Your task to perform on an android device: Open Google Chrome and open the bookmarks view Image 0: 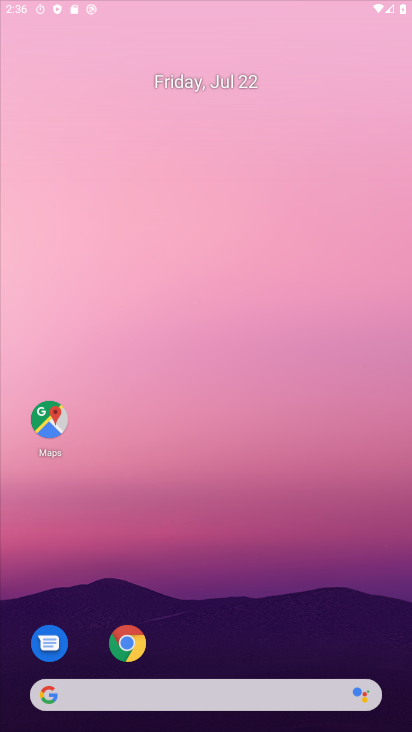
Step 0: press home button
Your task to perform on an android device: Open Google Chrome and open the bookmarks view Image 1: 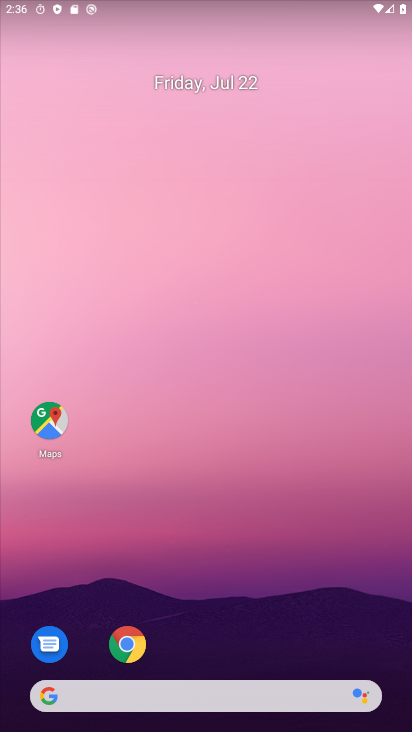
Step 1: drag from (266, 638) to (327, 58)
Your task to perform on an android device: Open Google Chrome and open the bookmarks view Image 2: 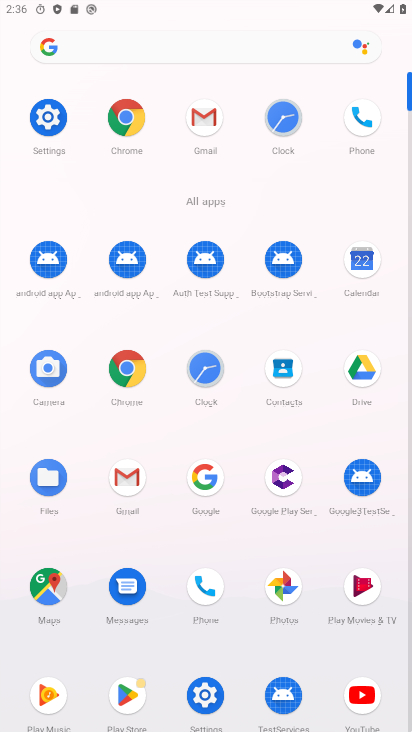
Step 2: click (129, 124)
Your task to perform on an android device: Open Google Chrome and open the bookmarks view Image 3: 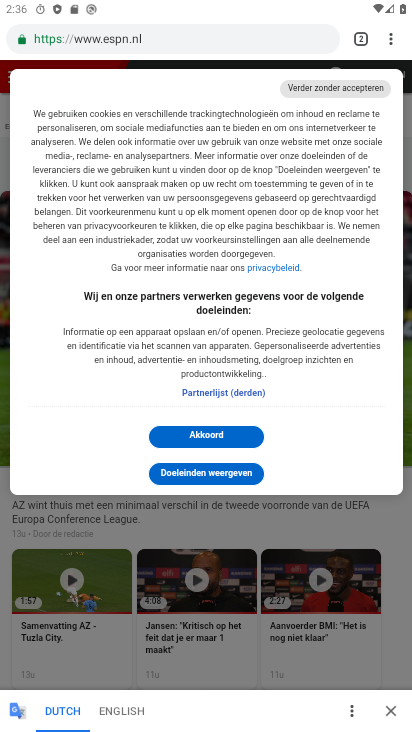
Step 3: task complete